Your task to perform on an android device: When is my next meeting? Image 0: 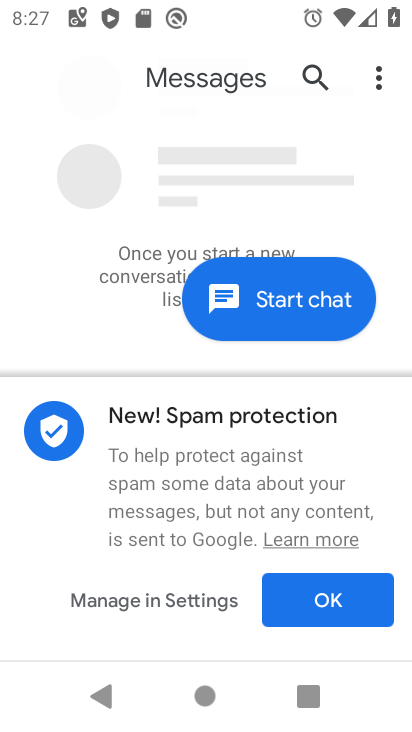
Step 0: press back button
Your task to perform on an android device: When is my next meeting? Image 1: 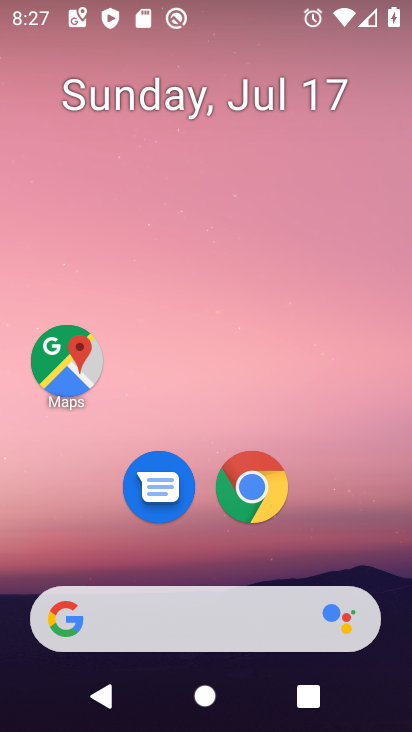
Step 1: drag from (224, 546) to (246, 0)
Your task to perform on an android device: When is my next meeting? Image 2: 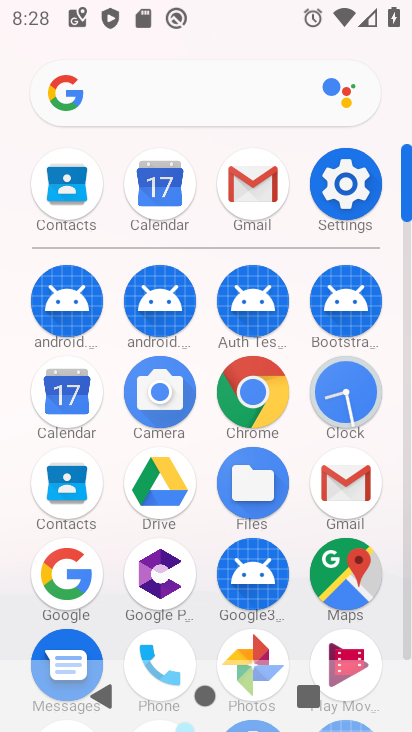
Step 2: click (79, 404)
Your task to perform on an android device: When is my next meeting? Image 3: 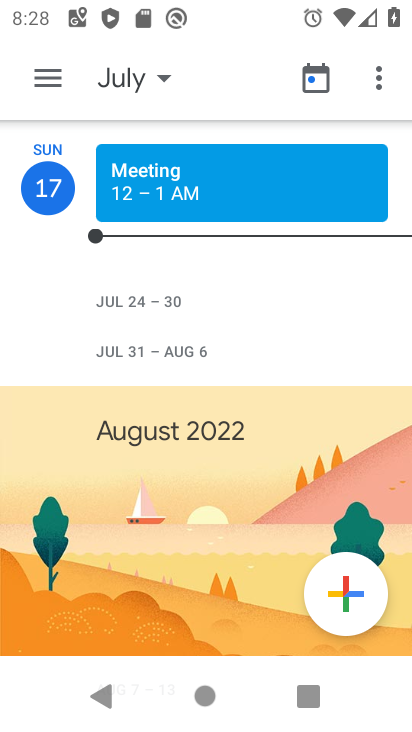
Step 3: task complete